Your task to perform on an android device: empty trash in google photos Image 0: 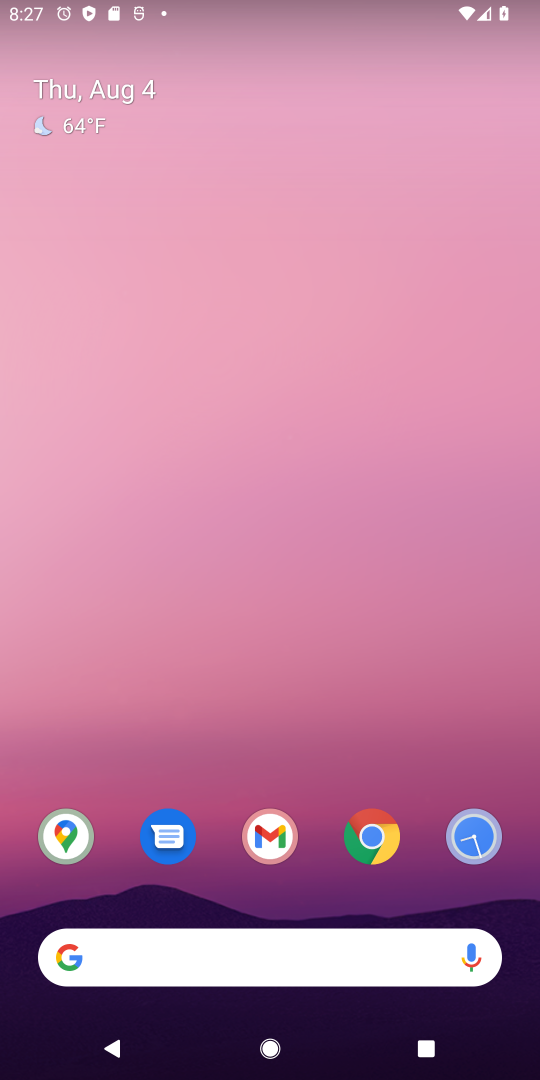
Step 0: drag from (238, 670) to (241, 27)
Your task to perform on an android device: empty trash in google photos Image 1: 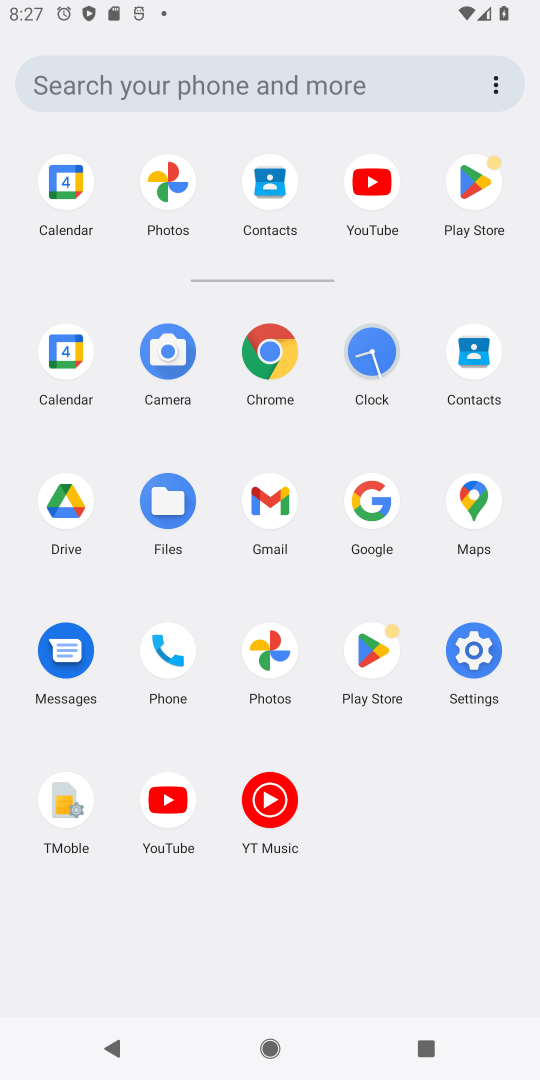
Step 1: click (267, 646)
Your task to perform on an android device: empty trash in google photos Image 2: 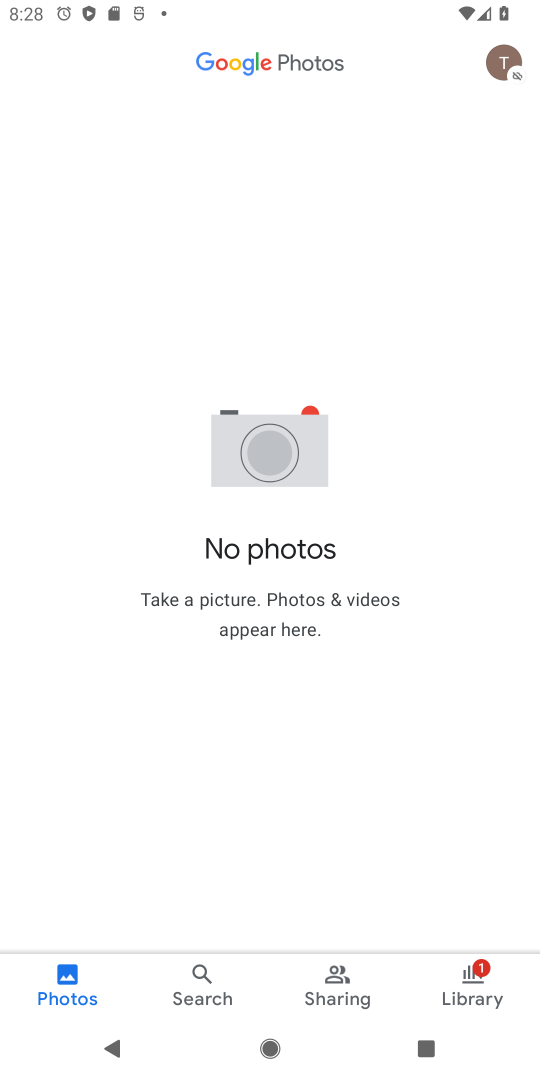
Step 2: click (499, 54)
Your task to perform on an android device: empty trash in google photos Image 3: 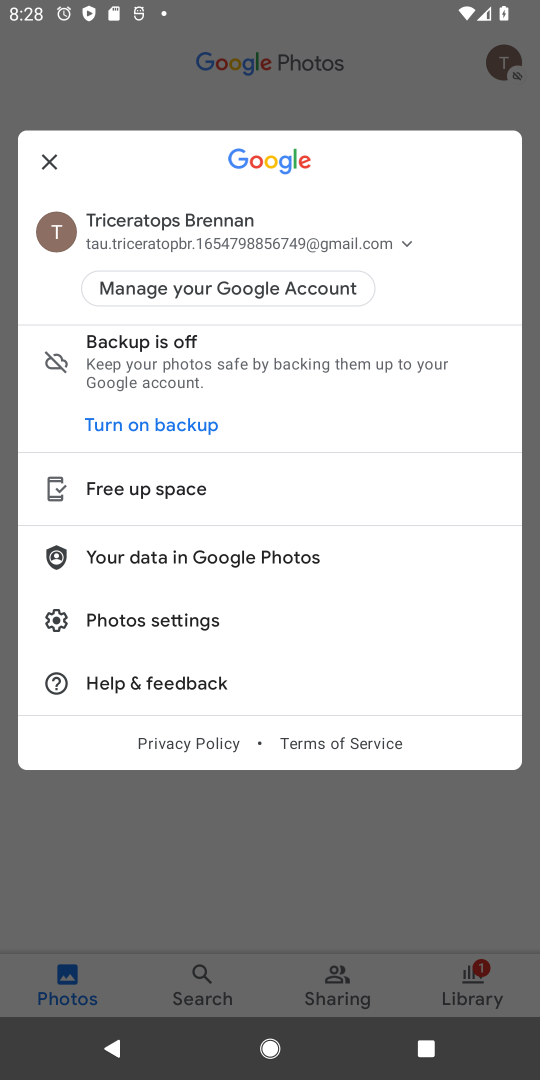
Step 3: task complete